Your task to perform on an android device: manage bookmarks in the chrome app Image 0: 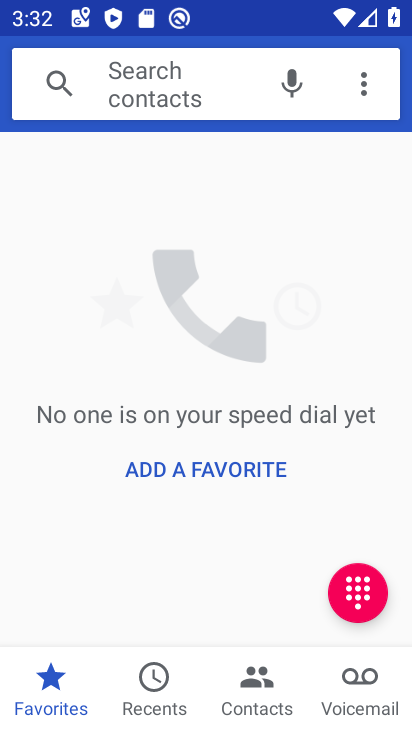
Step 0: press home button
Your task to perform on an android device: manage bookmarks in the chrome app Image 1: 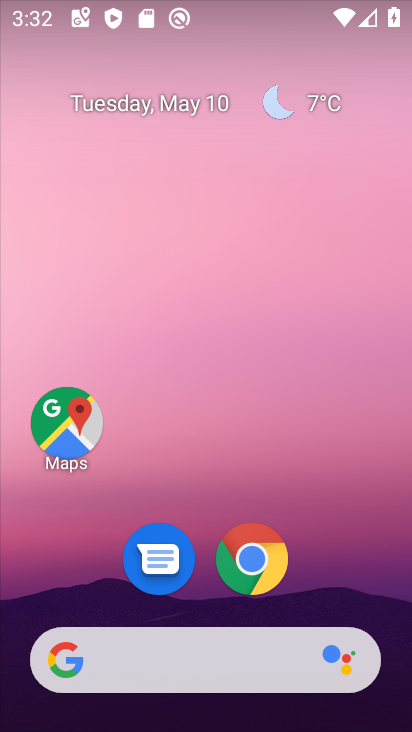
Step 1: click (250, 583)
Your task to perform on an android device: manage bookmarks in the chrome app Image 2: 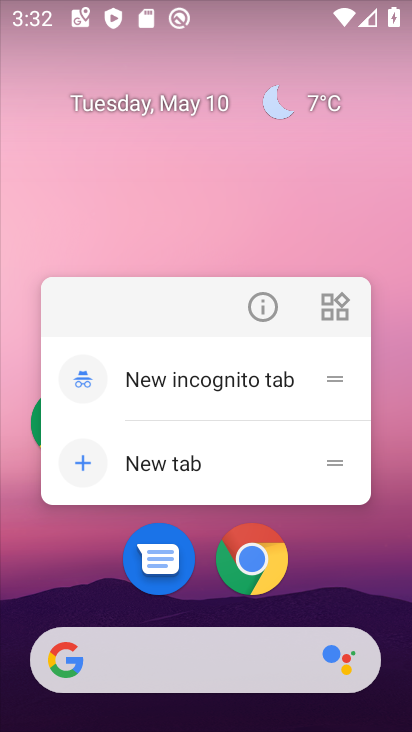
Step 2: click (250, 583)
Your task to perform on an android device: manage bookmarks in the chrome app Image 3: 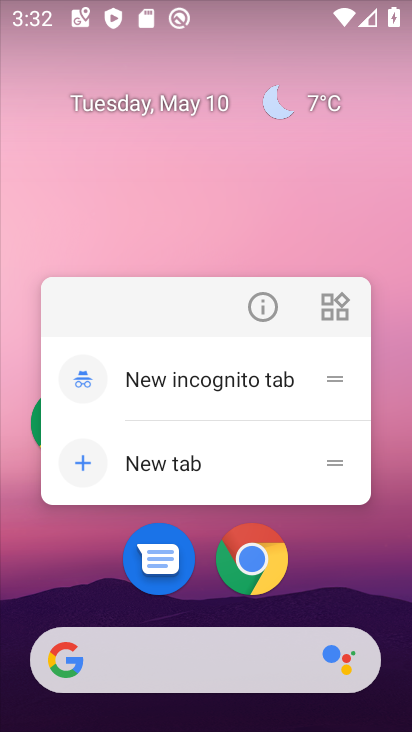
Step 3: click (266, 561)
Your task to perform on an android device: manage bookmarks in the chrome app Image 4: 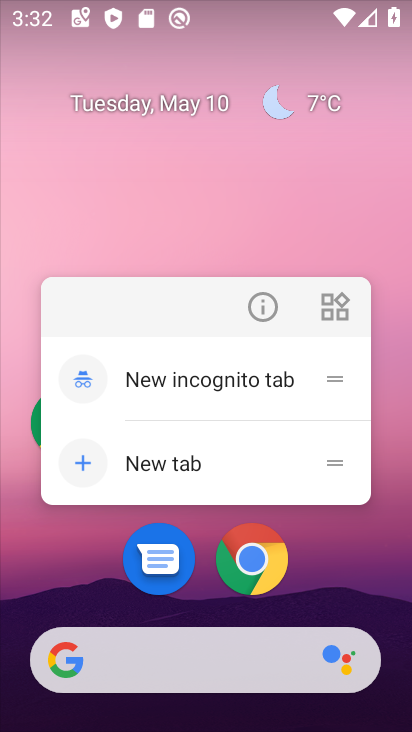
Step 4: click (259, 554)
Your task to perform on an android device: manage bookmarks in the chrome app Image 5: 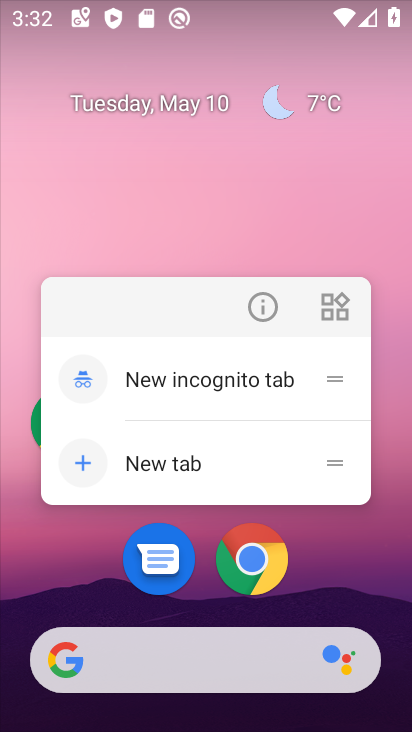
Step 5: click (244, 566)
Your task to perform on an android device: manage bookmarks in the chrome app Image 6: 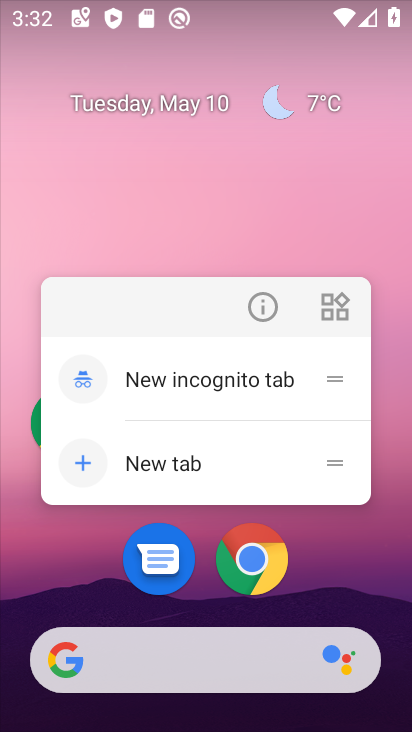
Step 6: click (245, 566)
Your task to perform on an android device: manage bookmarks in the chrome app Image 7: 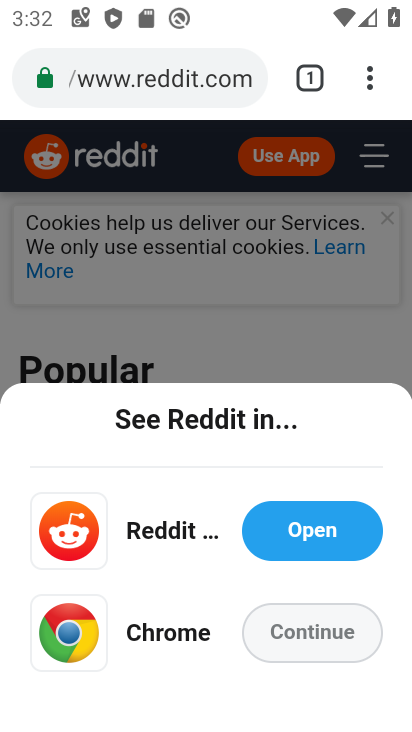
Step 7: task complete